Your task to perform on an android device: turn off javascript in the chrome app Image 0: 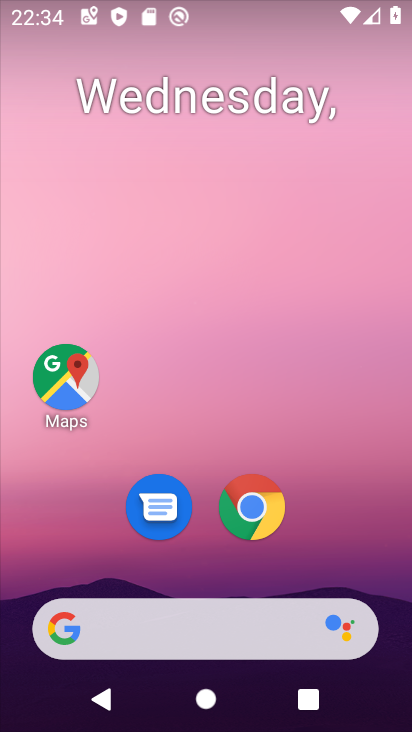
Step 0: drag from (318, 539) to (339, 174)
Your task to perform on an android device: turn off javascript in the chrome app Image 1: 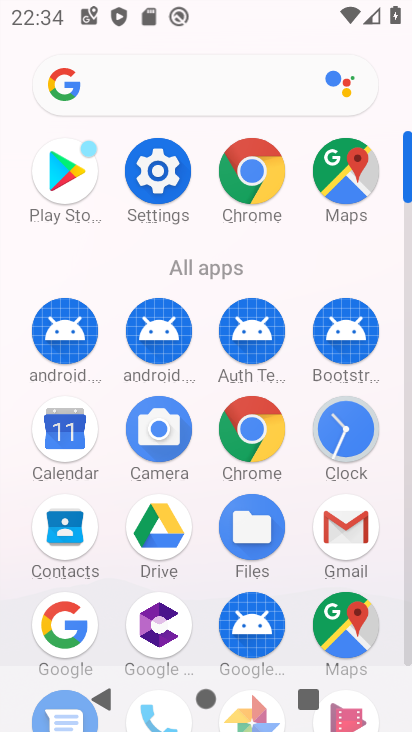
Step 1: click (253, 168)
Your task to perform on an android device: turn off javascript in the chrome app Image 2: 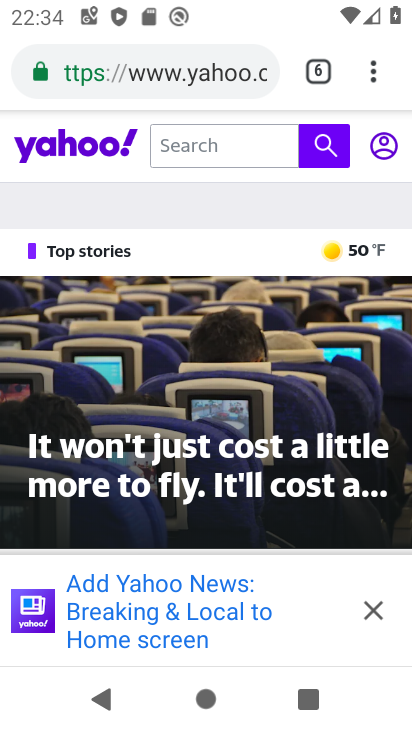
Step 2: click (359, 65)
Your task to perform on an android device: turn off javascript in the chrome app Image 3: 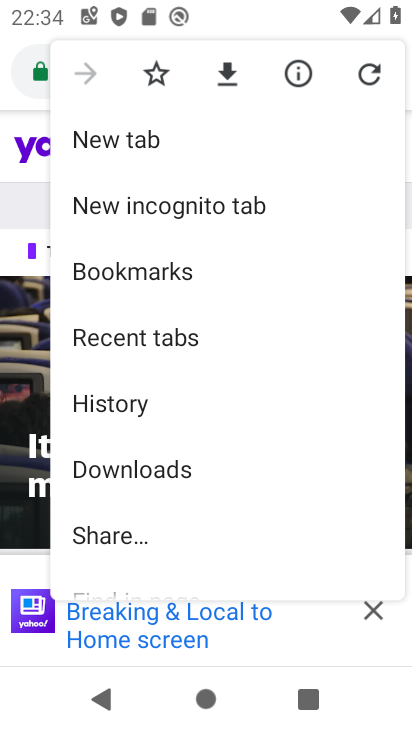
Step 3: drag from (210, 537) to (266, 259)
Your task to perform on an android device: turn off javascript in the chrome app Image 4: 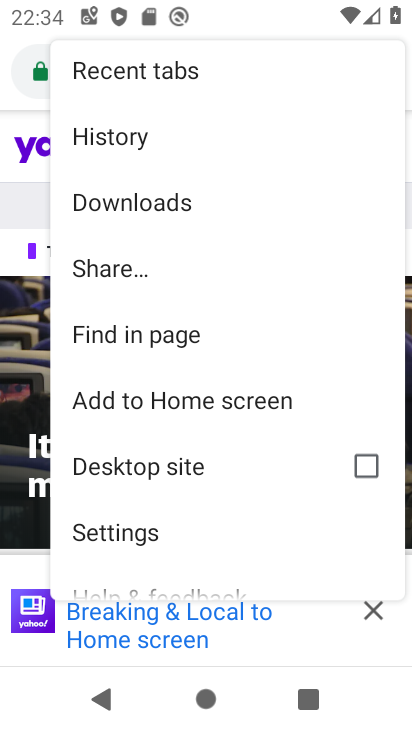
Step 4: click (136, 535)
Your task to perform on an android device: turn off javascript in the chrome app Image 5: 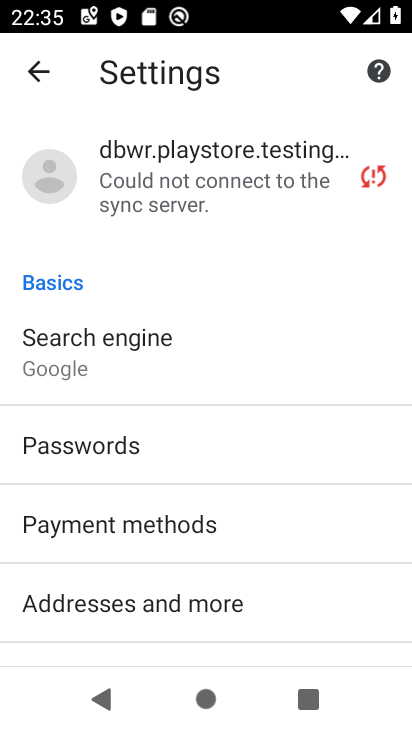
Step 5: drag from (254, 572) to (261, 205)
Your task to perform on an android device: turn off javascript in the chrome app Image 6: 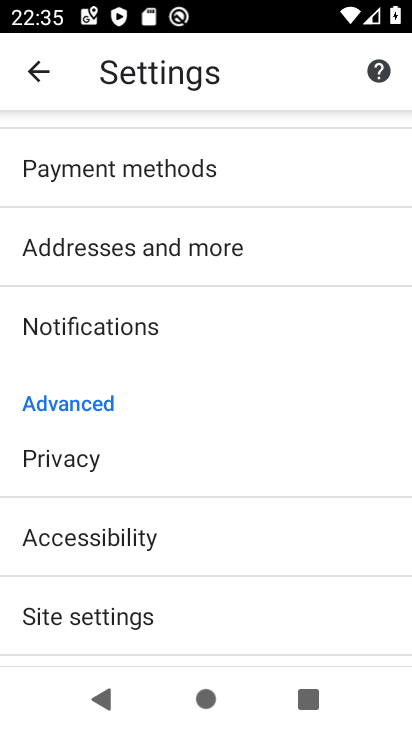
Step 6: drag from (202, 613) to (231, 306)
Your task to perform on an android device: turn off javascript in the chrome app Image 7: 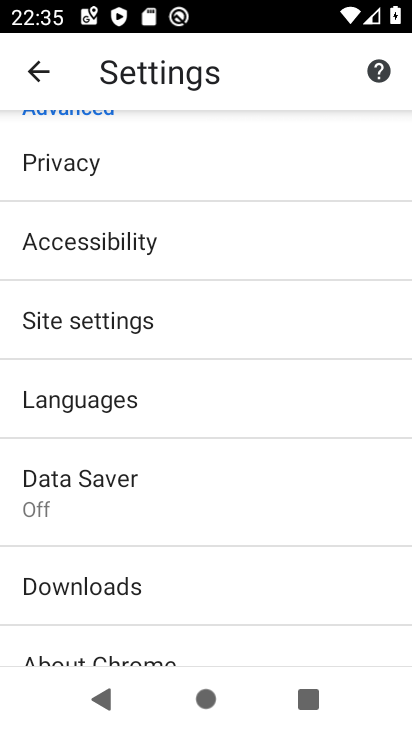
Step 7: drag from (151, 618) to (151, 498)
Your task to perform on an android device: turn off javascript in the chrome app Image 8: 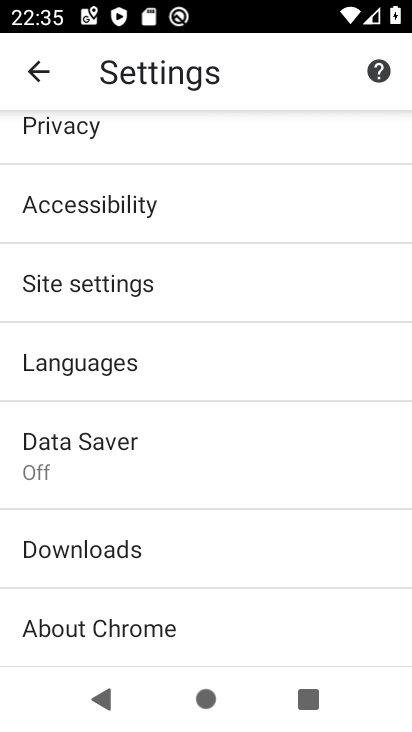
Step 8: click (172, 280)
Your task to perform on an android device: turn off javascript in the chrome app Image 9: 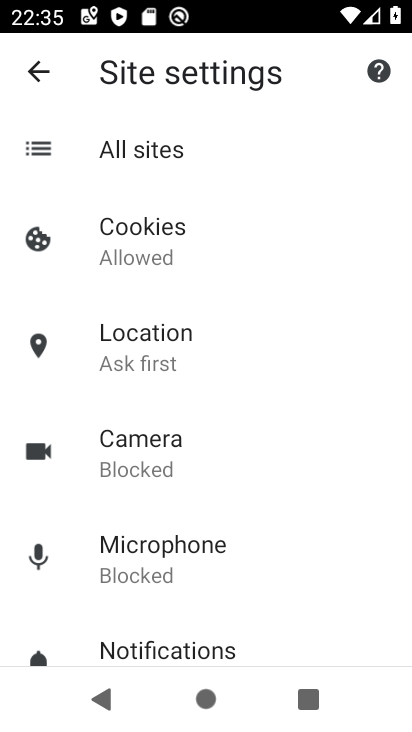
Step 9: drag from (203, 588) to (233, 268)
Your task to perform on an android device: turn off javascript in the chrome app Image 10: 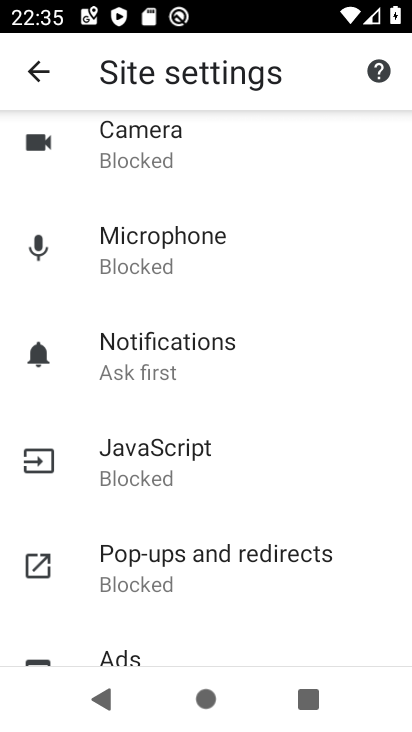
Step 10: click (149, 467)
Your task to perform on an android device: turn off javascript in the chrome app Image 11: 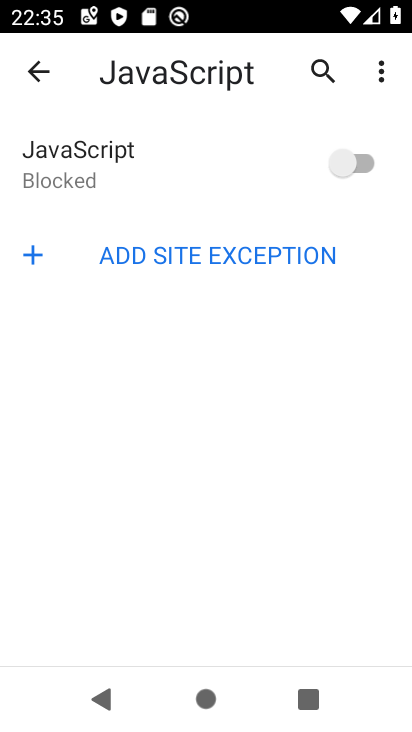
Step 11: task complete